Your task to perform on an android device: Open calendar and show me the third week of next month Image 0: 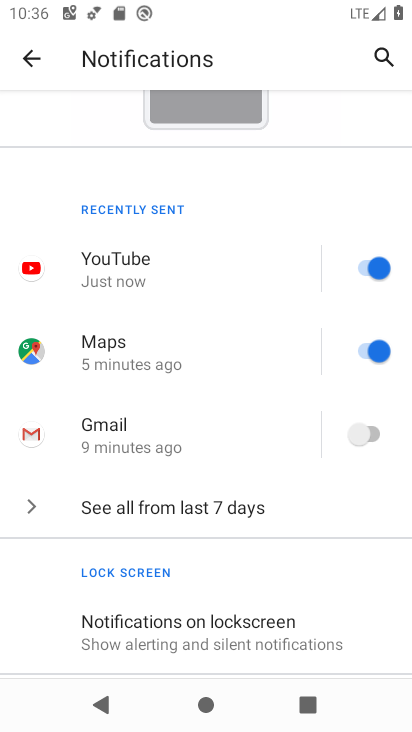
Step 0: press home button
Your task to perform on an android device: Open calendar and show me the third week of next month Image 1: 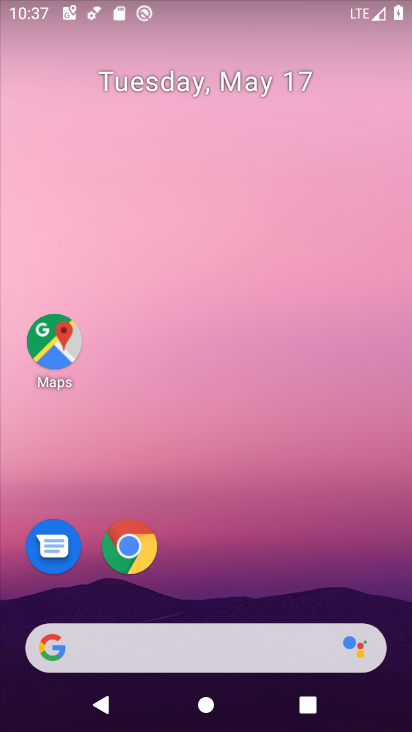
Step 1: drag from (225, 610) to (288, 146)
Your task to perform on an android device: Open calendar and show me the third week of next month Image 2: 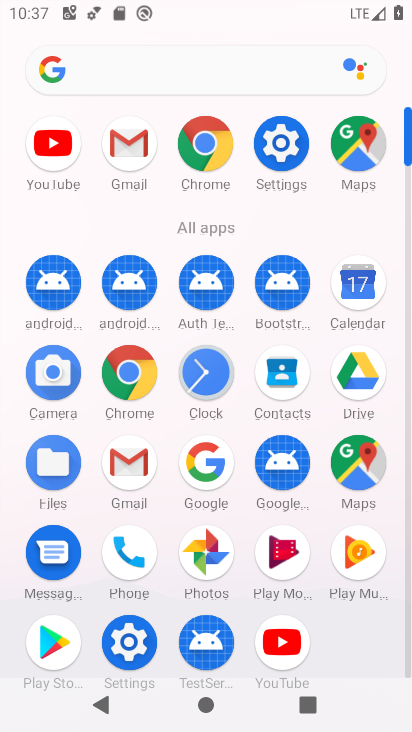
Step 2: click (366, 287)
Your task to perform on an android device: Open calendar and show me the third week of next month Image 3: 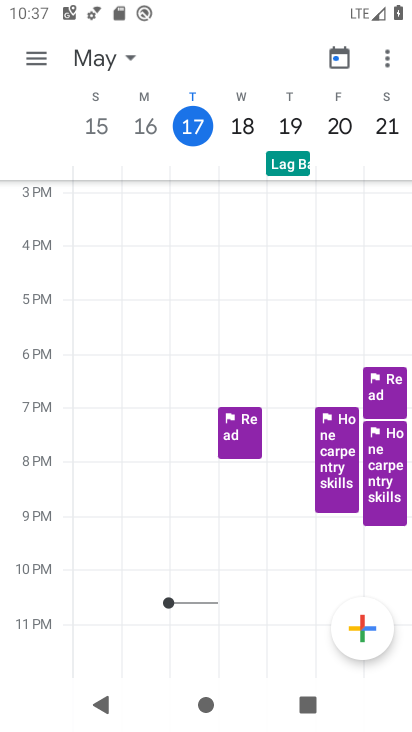
Step 3: task complete